Your task to perform on an android device: turn on the 12-hour format for clock Image 0: 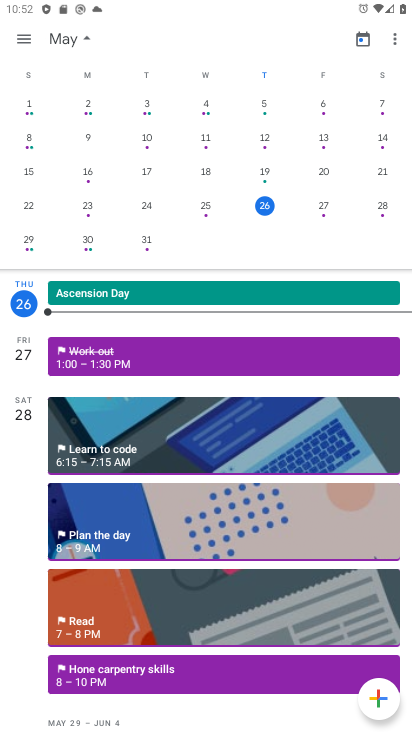
Step 0: press home button
Your task to perform on an android device: turn on the 12-hour format for clock Image 1: 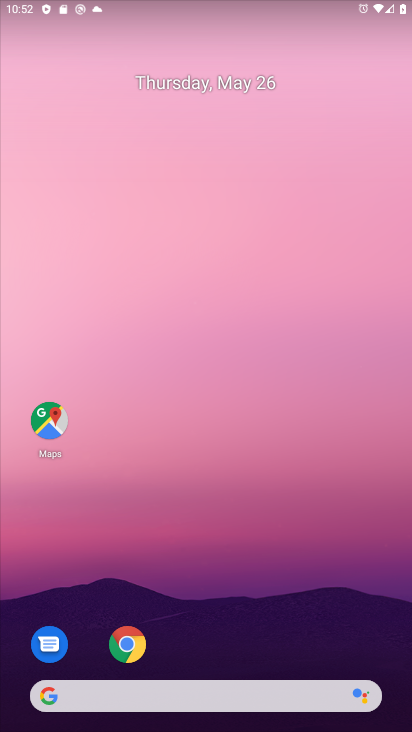
Step 1: drag from (231, 623) to (212, 227)
Your task to perform on an android device: turn on the 12-hour format for clock Image 2: 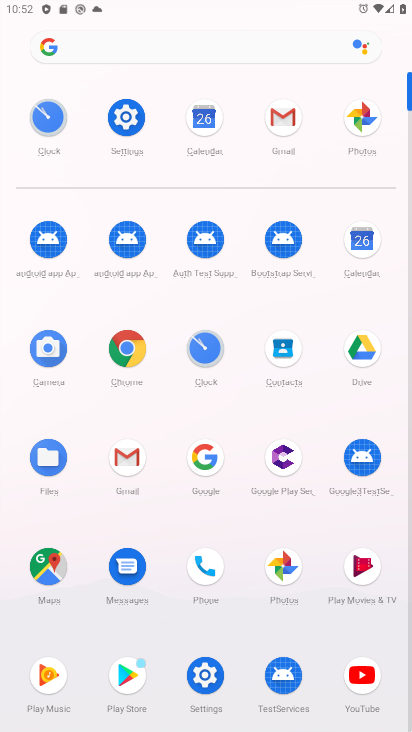
Step 2: click (62, 123)
Your task to perform on an android device: turn on the 12-hour format for clock Image 3: 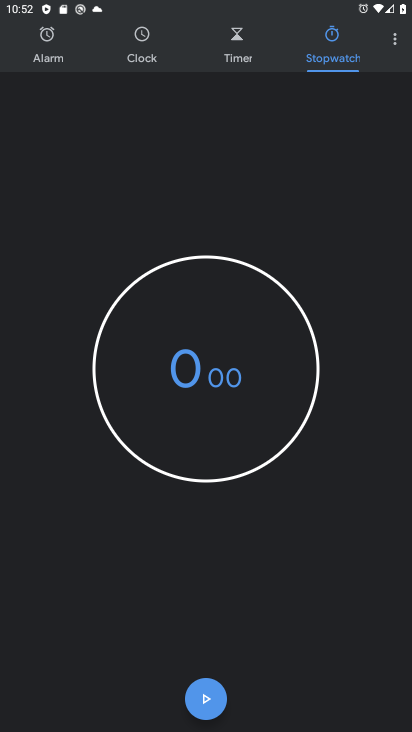
Step 3: click (395, 36)
Your task to perform on an android device: turn on the 12-hour format for clock Image 4: 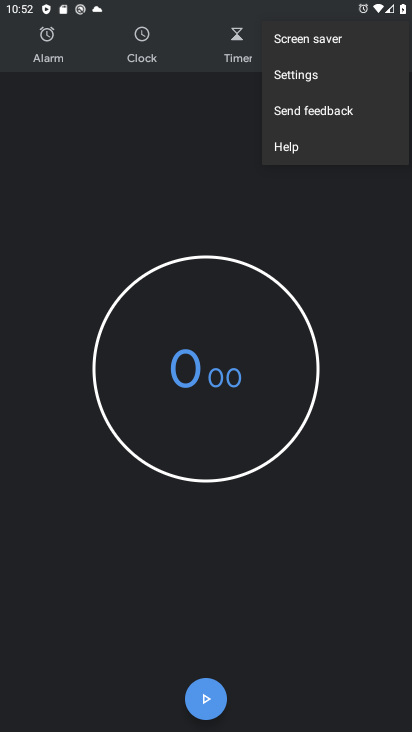
Step 4: click (296, 73)
Your task to perform on an android device: turn on the 12-hour format for clock Image 5: 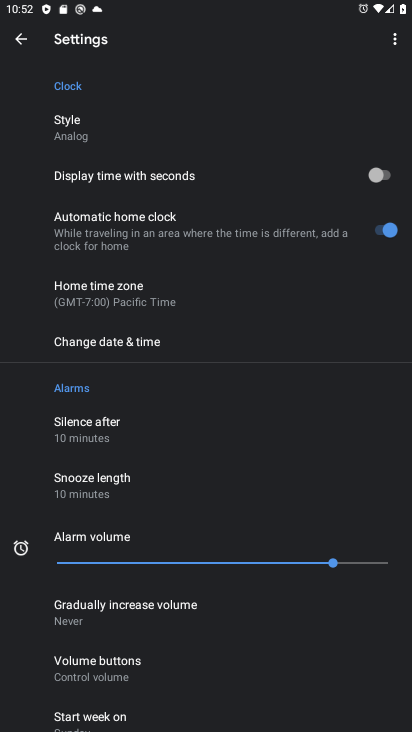
Step 5: click (119, 341)
Your task to perform on an android device: turn on the 12-hour format for clock Image 6: 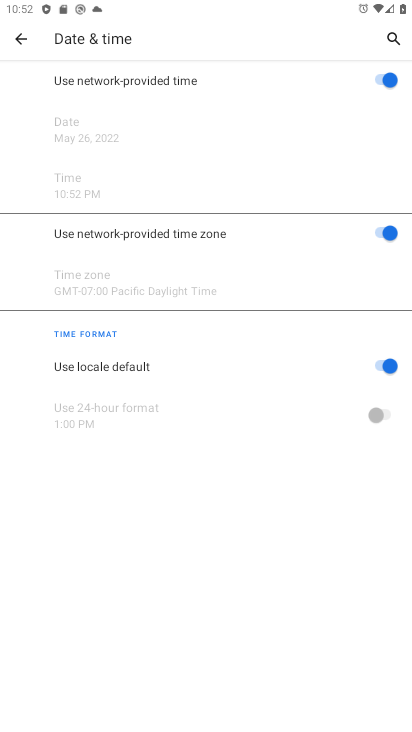
Step 6: click (13, 42)
Your task to perform on an android device: turn on the 12-hour format for clock Image 7: 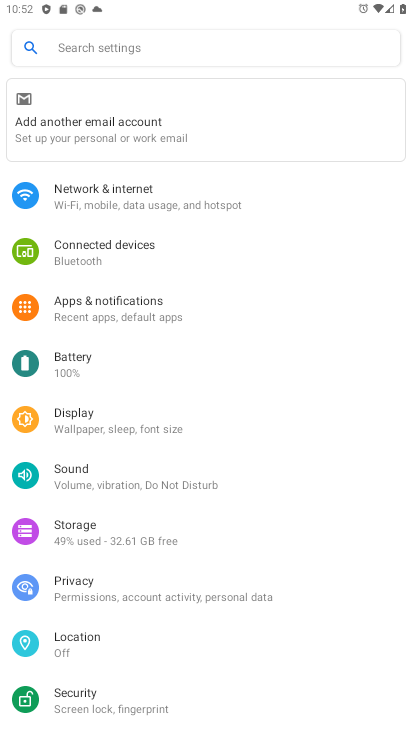
Step 7: press home button
Your task to perform on an android device: turn on the 12-hour format for clock Image 8: 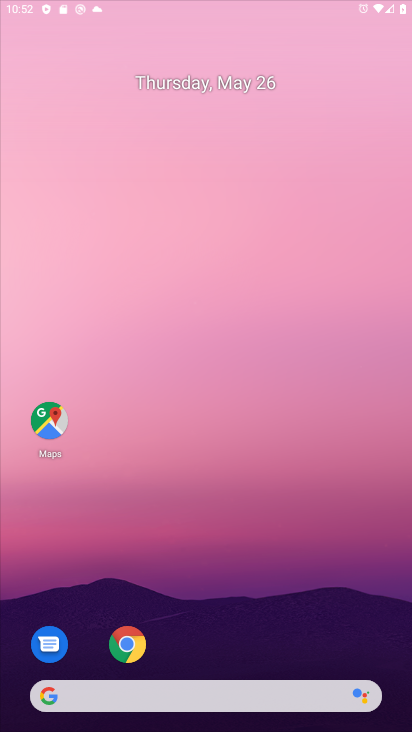
Step 8: drag from (220, 635) to (208, 205)
Your task to perform on an android device: turn on the 12-hour format for clock Image 9: 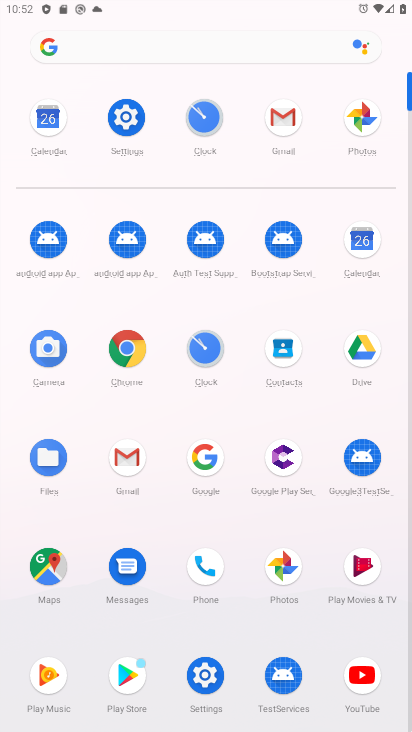
Step 9: click (207, 368)
Your task to perform on an android device: turn on the 12-hour format for clock Image 10: 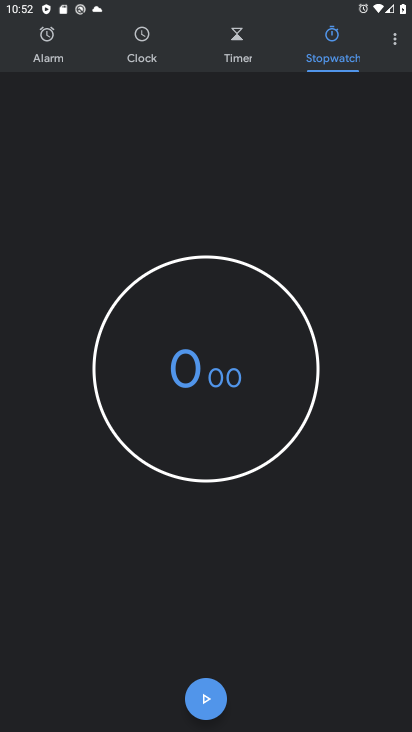
Step 10: click (396, 28)
Your task to perform on an android device: turn on the 12-hour format for clock Image 11: 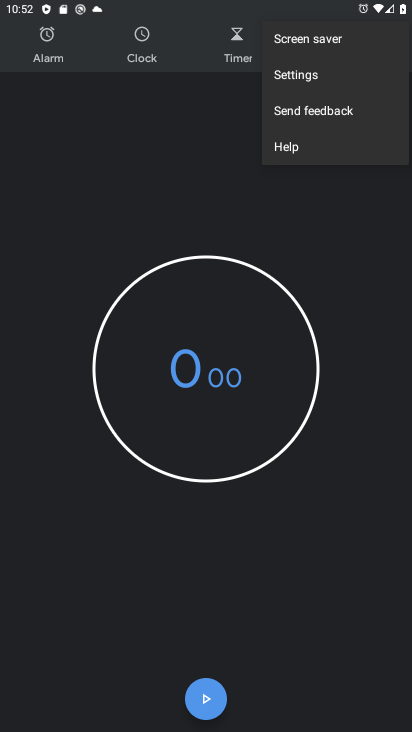
Step 11: click (348, 78)
Your task to perform on an android device: turn on the 12-hour format for clock Image 12: 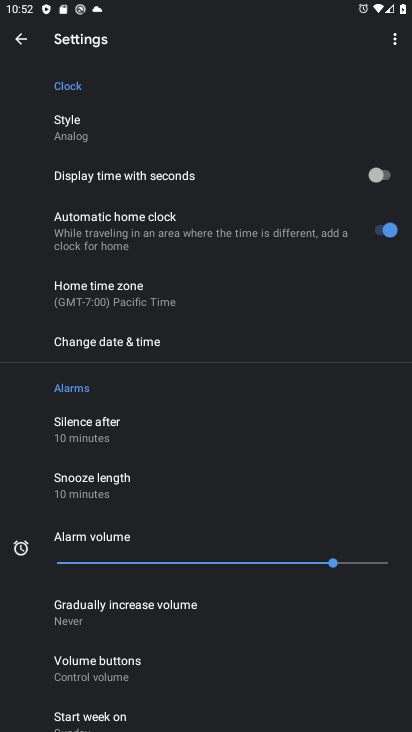
Step 12: click (125, 348)
Your task to perform on an android device: turn on the 12-hour format for clock Image 13: 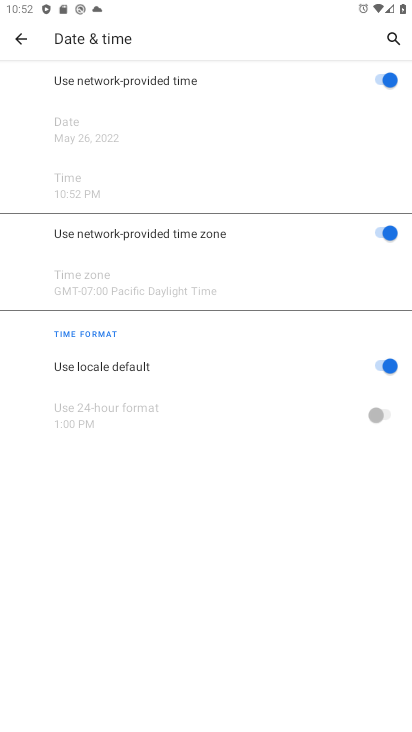
Step 13: task complete